Your task to perform on an android device: Show me recent news Image 0: 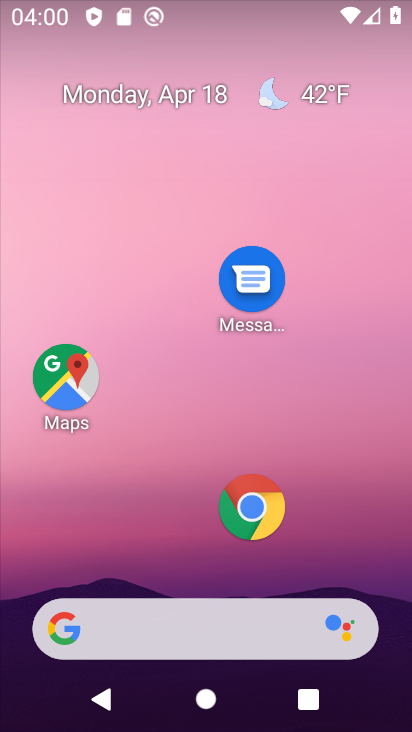
Step 0: click (252, 508)
Your task to perform on an android device: Show me recent news Image 1: 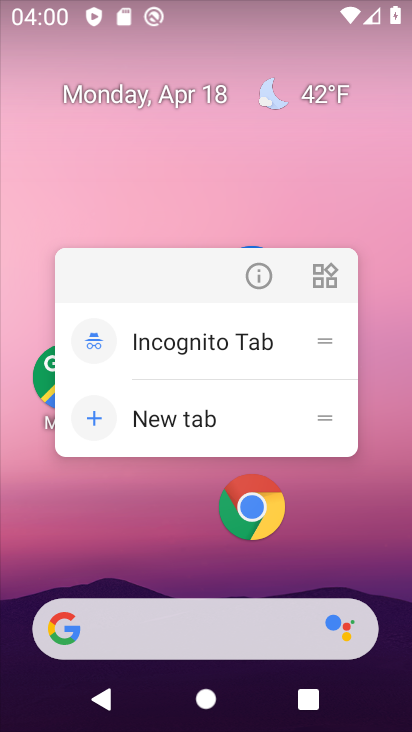
Step 1: click (187, 562)
Your task to perform on an android device: Show me recent news Image 2: 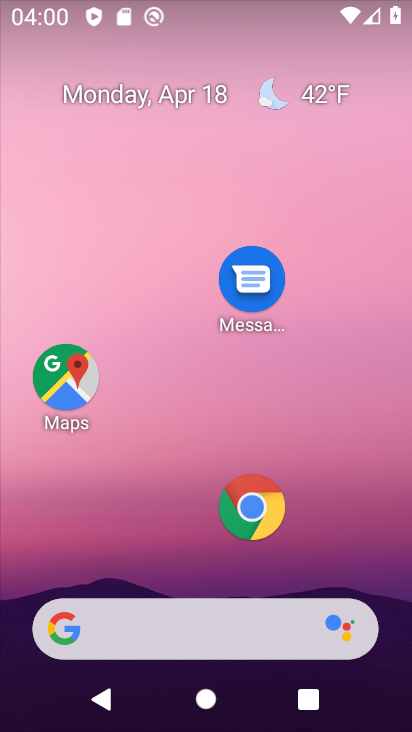
Step 2: drag from (138, 454) to (138, 169)
Your task to perform on an android device: Show me recent news Image 3: 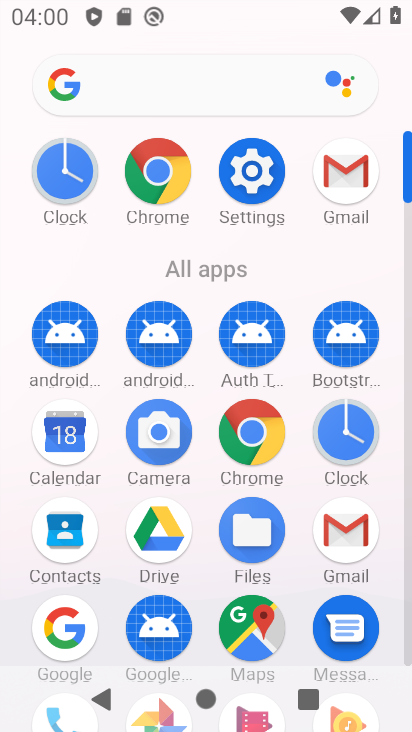
Step 3: drag from (217, 635) to (262, 351)
Your task to perform on an android device: Show me recent news Image 4: 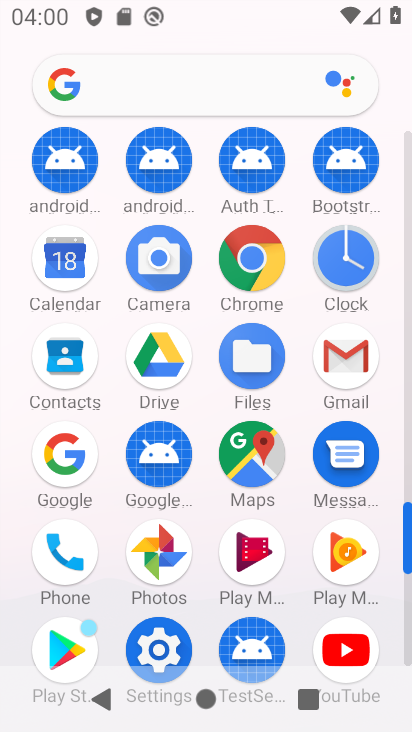
Step 4: click (249, 325)
Your task to perform on an android device: Show me recent news Image 5: 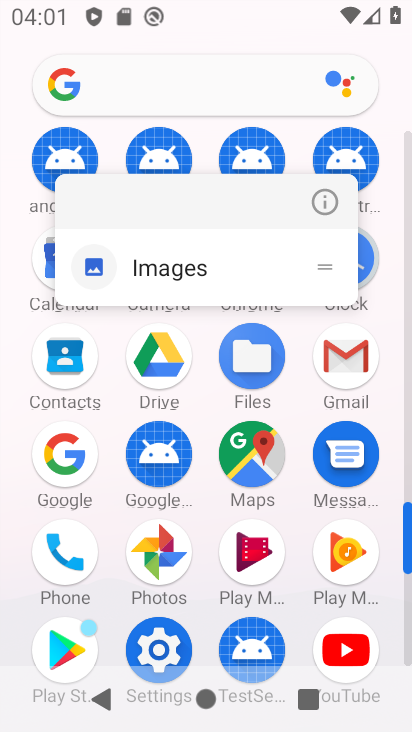
Step 5: drag from (225, 462) to (255, 336)
Your task to perform on an android device: Show me recent news Image 6: 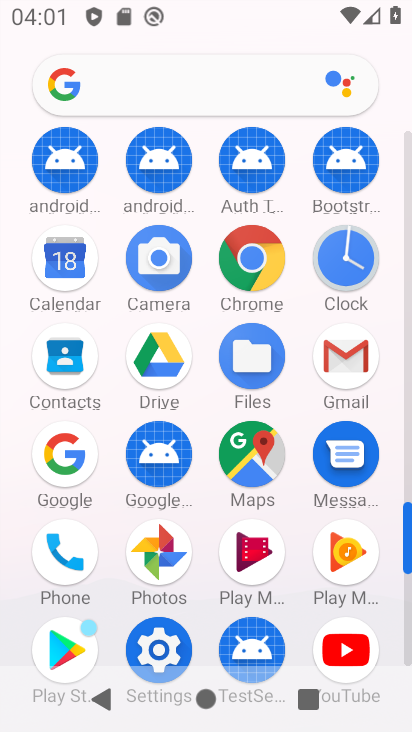
Step 6: click (241, 259)
Your task to perform on an android device: Show me recent news Image 7: 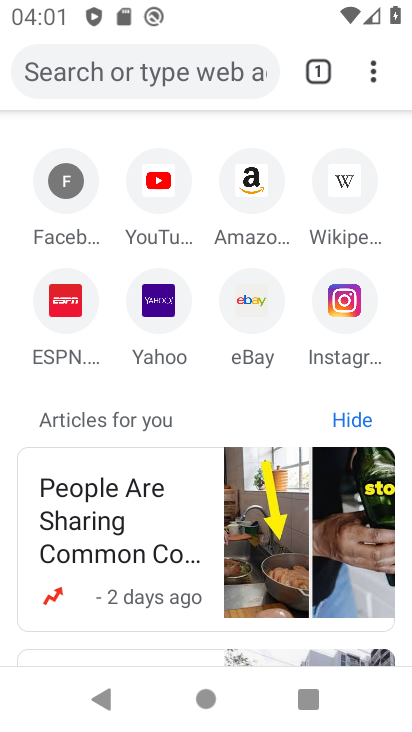
Step 7: click (168, 82)
Your task to perform on an android device: Show me recent news Image 8: 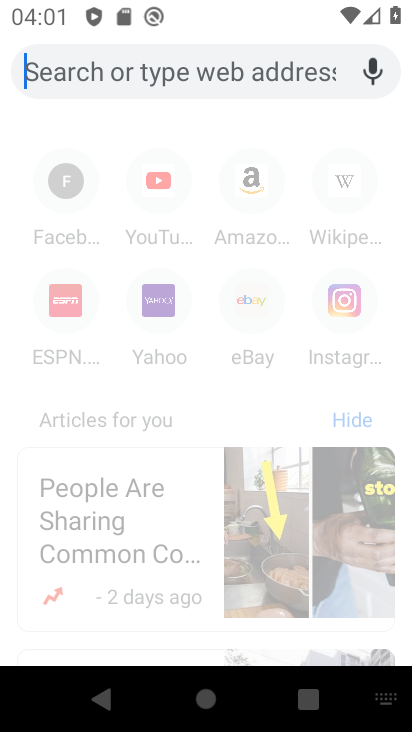
Step 8: type "recent news"
Your task to perform on an android device: Show me recent news Image 9: 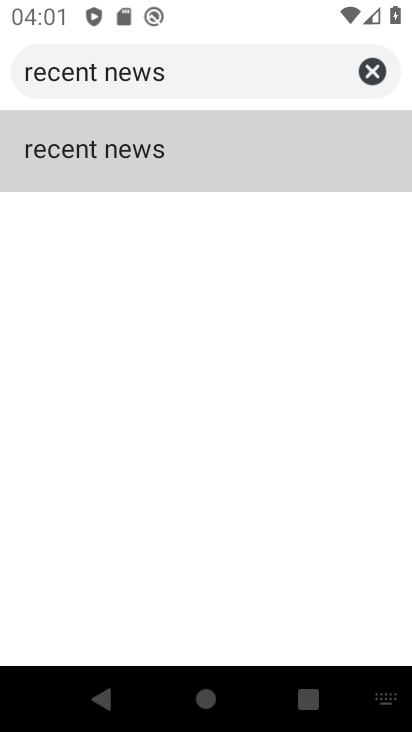
Step 9: click (165, 164)
Your task to perform on an android device: Show me recent news Image 10: 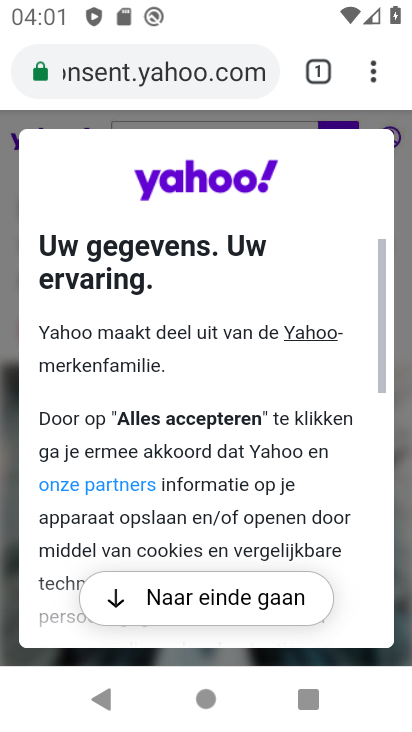
Step 10: task complete